Your task to perform on an android device: Open ESPN.com Image 0: 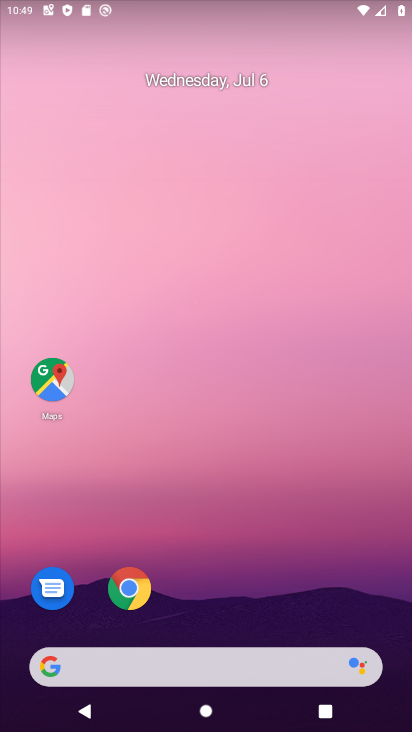
Step 0: drag from (217, 601) to (241, 264)
Your task to perform on an android device: Open ESPN.com Image 1: 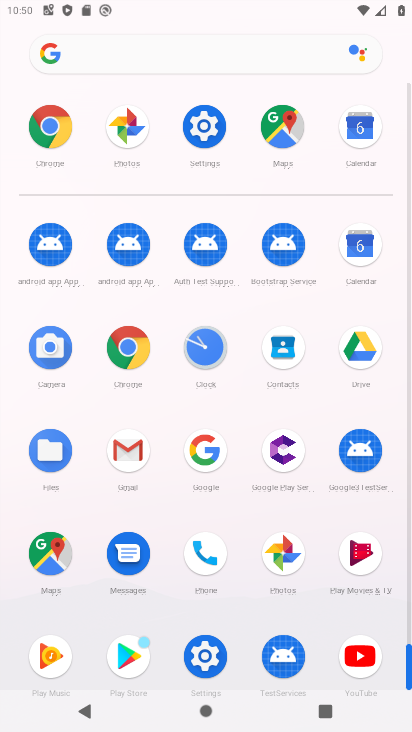
Step 1: click (135, 352)
Your task to perform on an android device: Open ESPN.com Image 2: 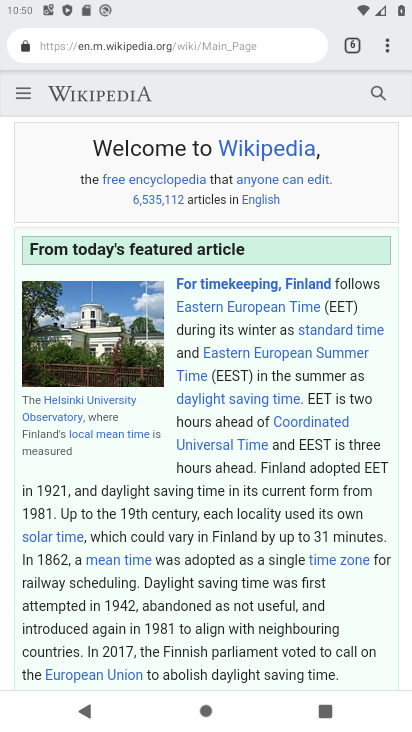
Step 2: click (394, 43)
Your task to perform on an android device: Open ESPN.com Image 3: 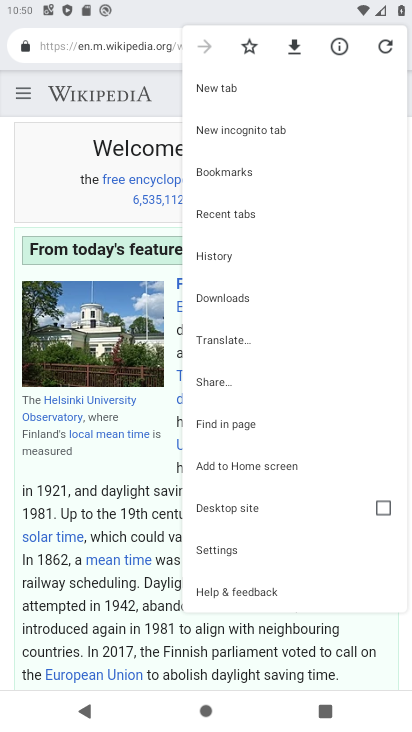
Step 3: click (236, 85)
Your task to perform on an android device: Open ESPN.com Image 4: 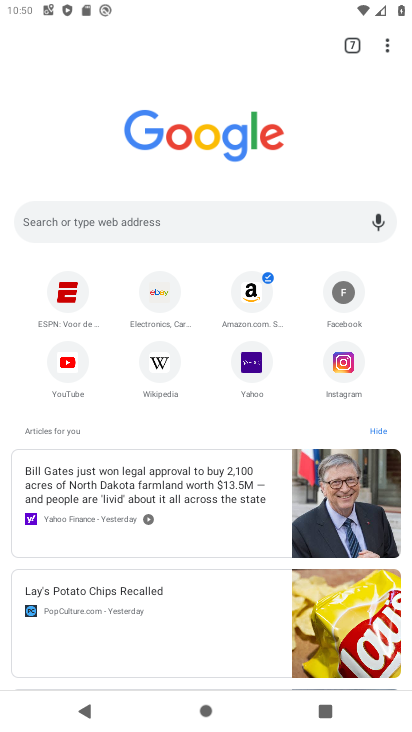
Step 4: click (68, 282)
Your task to perform on an android device: Open ESPN.com Image 5: 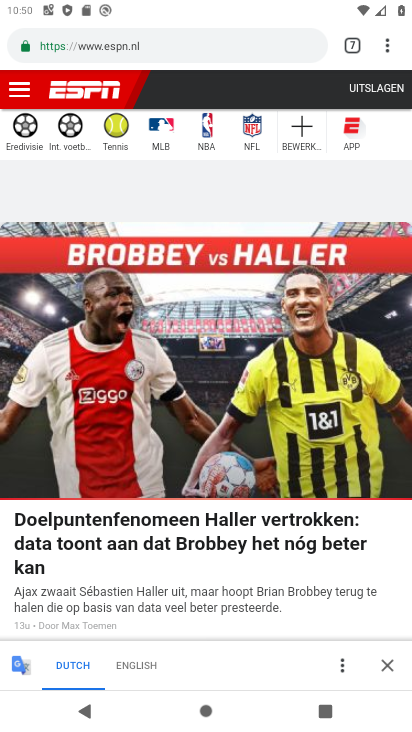
Step 5: task complete